Your task to perform on an android device: Empty the shopping cart on walmart.com. Search for razer deathadder on walmart.com, select the first entry, and add it to the cart. Image 0: 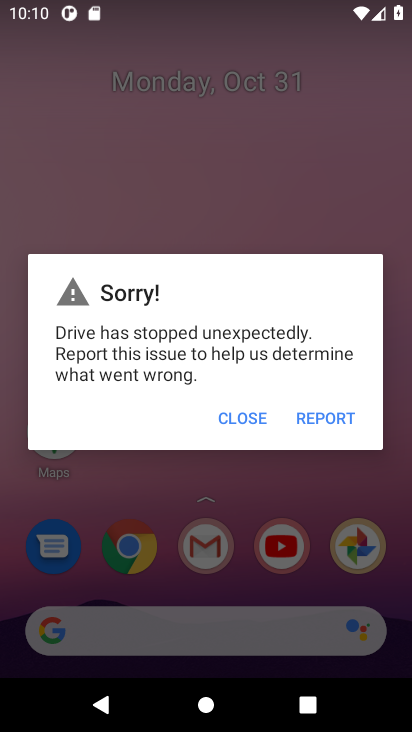
Step 0: press home button
Your task to perform on an android device: Empty the shopping cart on walmart.com. Search for razer deathadder on walmart.com, select the first entry, and add it to the cart. Image 1: 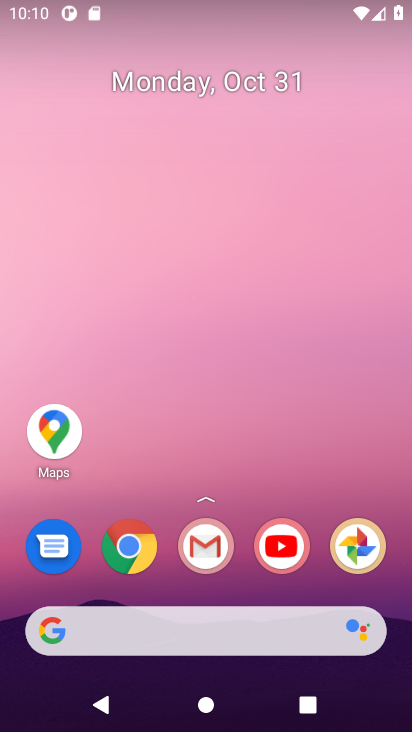
Step 1: click (136, 560)
Your task to perform on an android device: Empty the shopping cart on walmart.com. Search for razer deathadder on walmart.com, select the first entry, and add it to the cart. Image 2: 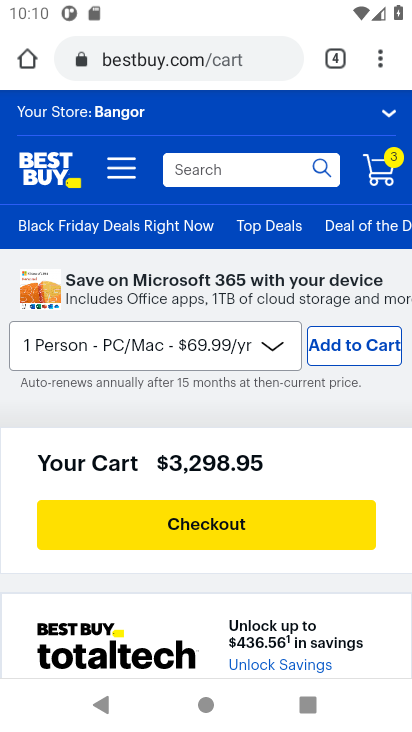
Step 2: click (141, 57)
Your task to perform on an android device: Empty the shopping cart on walmart.com. Search for razer deathadder on walmart.com, select the first entry, and add it to the cart. Image 3: 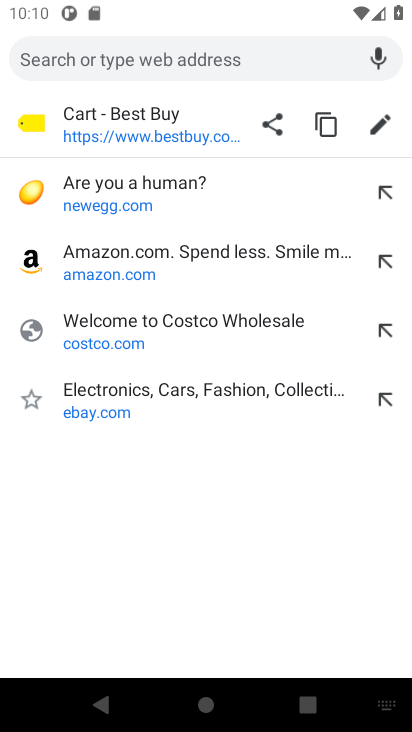
Step 3: type "walmart.com"
Your task to perform on an android device: Empty the shopping cart on walmart.com. Search for razer deathadder on walmart.com, select the first entry, and add it to the cart. Image 4: 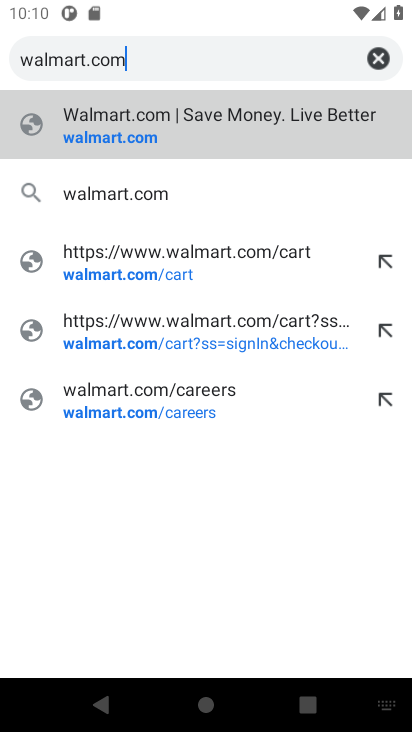
Step 4: press enter
Your task to perform on an android device: Empty the shopping cart on walmart.com. Search for razer deathadder on walmart.com, select the first entry, and add it to the cart. Image 5: 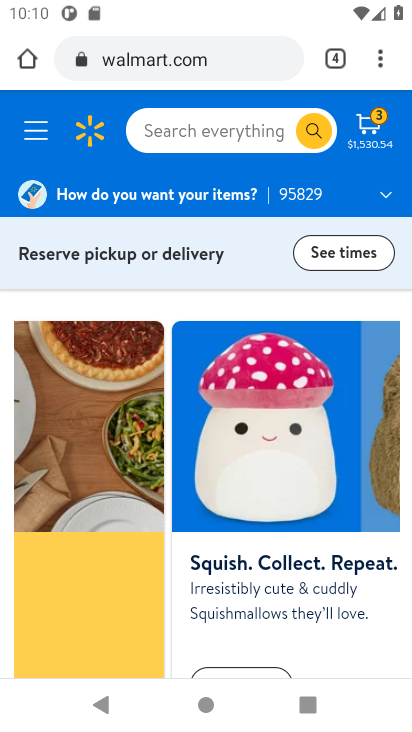
Step 5: click (379, 143)
Your task to perform on an android device: Empty the shopping cart on walmart.com. Search for razer deathadder on walmart.com, select the first entry, and add it to the cart. Image 6: 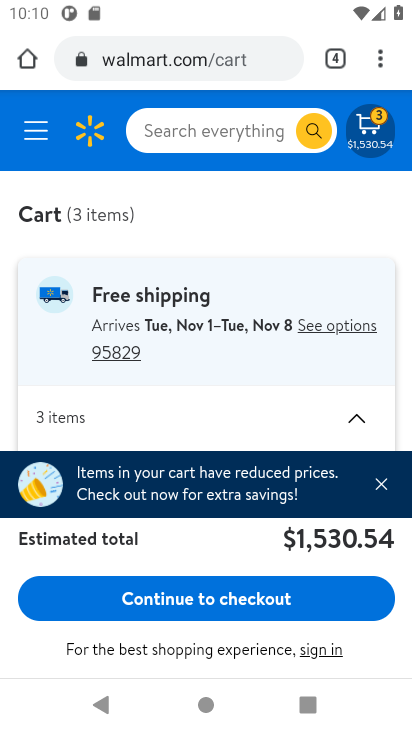
Step 6: click (355, 426)
Your task to perform on an android device: Empty the shopping cart on walmart.com. Search for razer deathadder on walmart.com, select the first entry, and add it to the cart. Image 7: 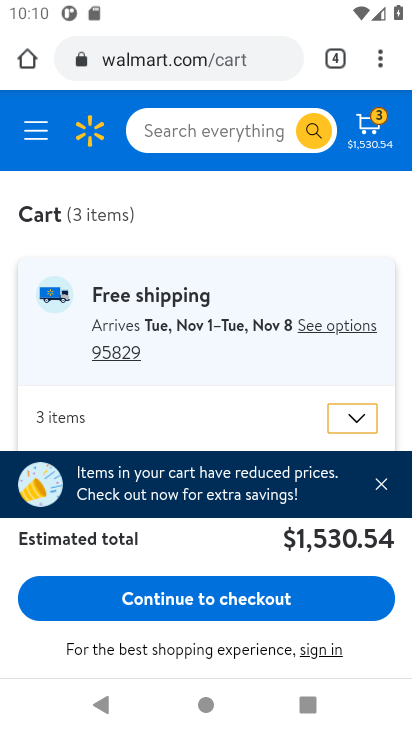
Step 7: click (382, 489)
Your task to perform on an android device: Empty the shopping cart on walmart.com. Search for razer deathadder on walmart.com, select the first entry, and add it to the cart. Image 8: 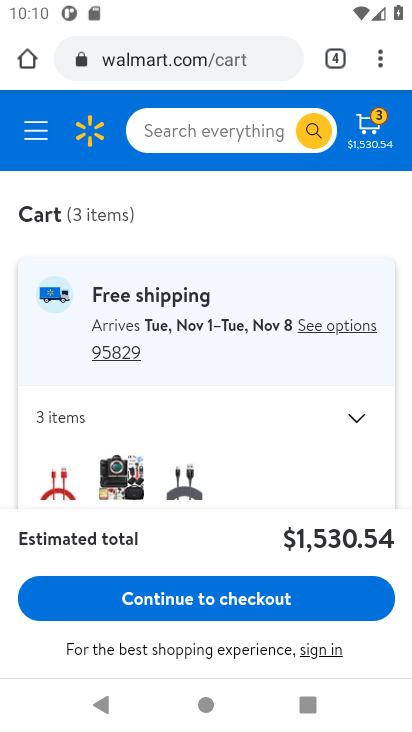
Step 8: drag from (313, 456) to (324, 216)
Your task to perform on an android device: Empty the shopping cart on walmart.com. Search for razer deathadder on walmart.com, select the first entry, and add it to the cart. Image 9: 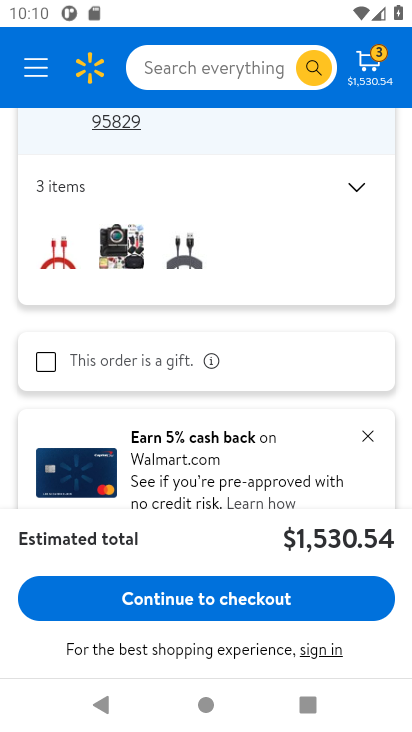
Step 9: click (365, 440)
Your task to perform on an android device: Empty the shopping cart on walmart.com. Search for razer deathadder on walmart.com, select the first entry, and add it to the cart. Image 10: 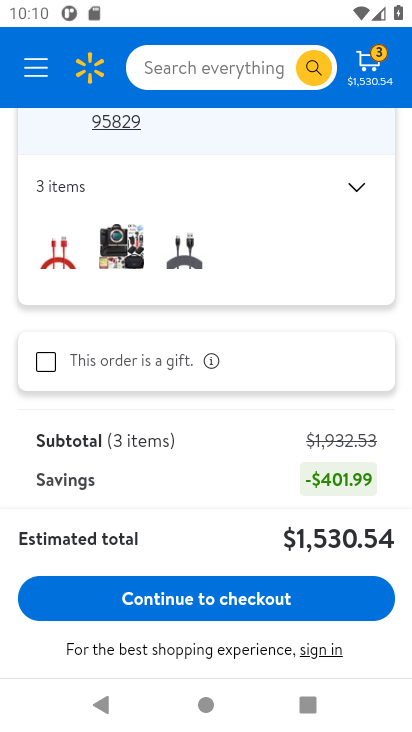
Step 10: drag from (352, 467) to (357, 535)
Your task to perform on an android device: Empty the shopping cart on walmart.com. Search for razer deathadder on walmart.com, select the first entry, and add it to the cart. Image 11: 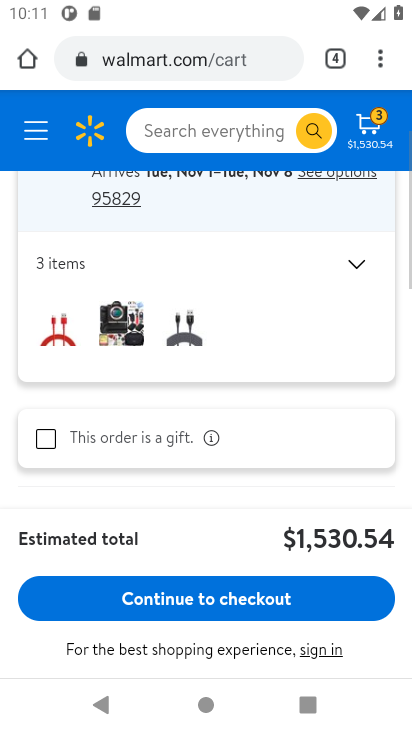
Step 11: drag from (323, 302) to (350, 477)
Your task to perform on an android device: Empty the shopping cart on walmart.com. Search for razer deathadder on walmart.com, select the first entry, and add it to the cart. Image 12: 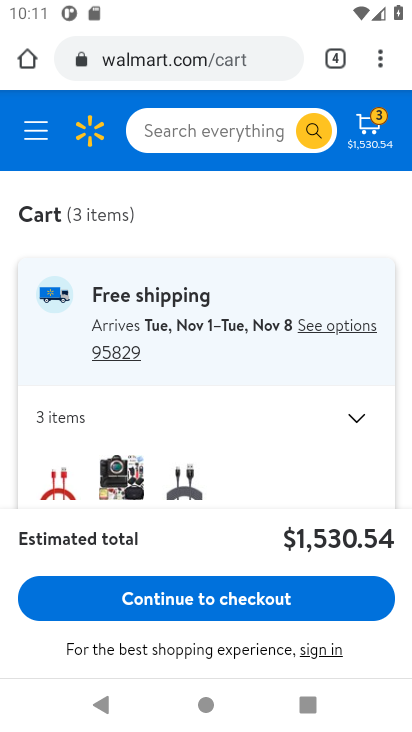
Step 12: click (326, 308)
Your task to perform on an android device: Empty the shopping cart on walmart.com. Search for razer deathadder on walmart.com, select the first entry, and add it to the cart. Image 13: 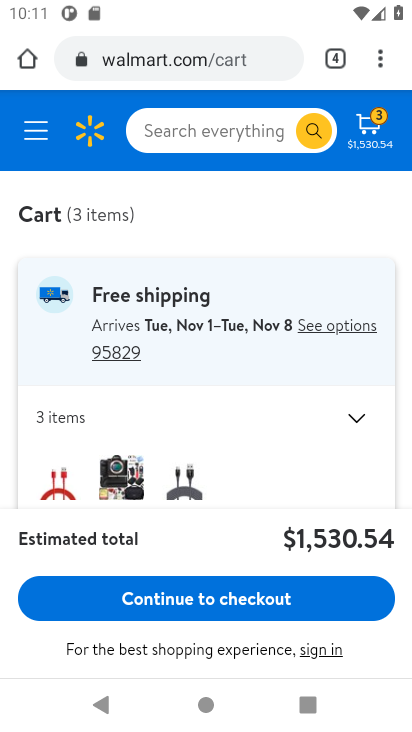
Step 13: drag from (326, 308) to (358, 220)
Your task to perform on an android device: Empty the shopping cart on walmart.com. Search for razer deathadder on walmart.com, select the first entry, and add it to the cart. Image 14: 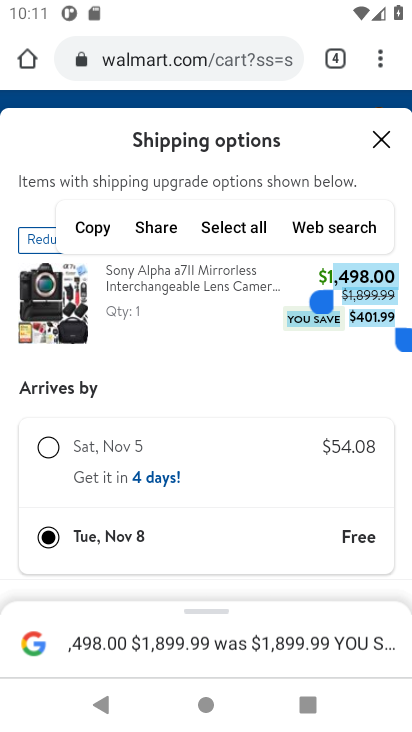
Step 14: drag from (216, 488) to (261, 320)
Your task to perform on an android device: Empty the shopping cart on walmart.com. Search for razer deathadder on walmart.com, select the first entry, and add it to the cart. Image 15: 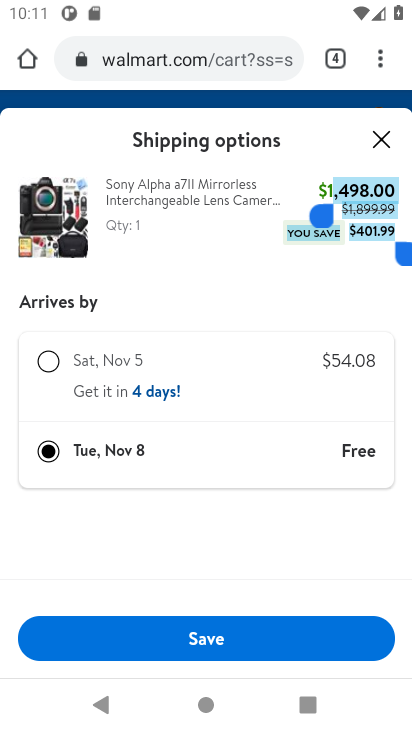
Step 15: drag from (235, 434) to (285, 247)
Your task to perform on an android device: Empty the shopping cart on walmart.com. Search for razer deathadder on walmart.com, select the first entry, and add it to the cart. Image 16: 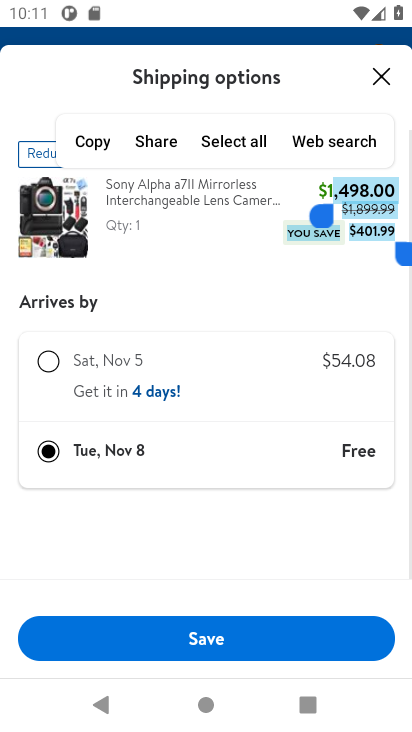
Step 16: drag from (258, 493) to (292, 666)
Your task to perform on an android device: Empty the shopping cart on walmart.com. Search for razer deathadder on walmart.com, select the first entry, and add it to the cart. Image 17: 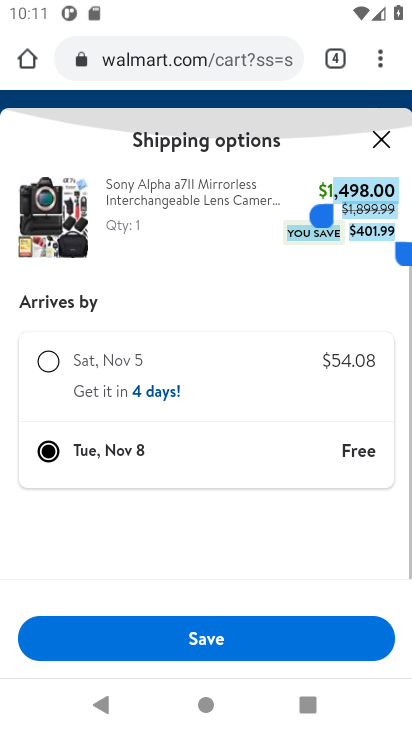
Step 17: drag from (279, 499) to (286, 562)
Your task to perform on an android device: Empty the shopping cart on walmart.com. Search for razer deathadder on walmart.com, select the first entry, and add it to the cart. Image 18: 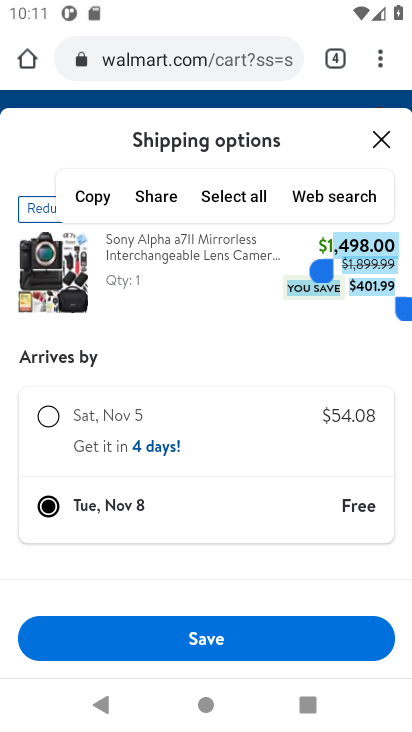
Step 18: click (376, 146)
Your task to perform on an android device: Empty the shopping cart on walmart.com. Search for razer deathadder on walmart.com, select the first entry, and add it to the cart. Image 19: 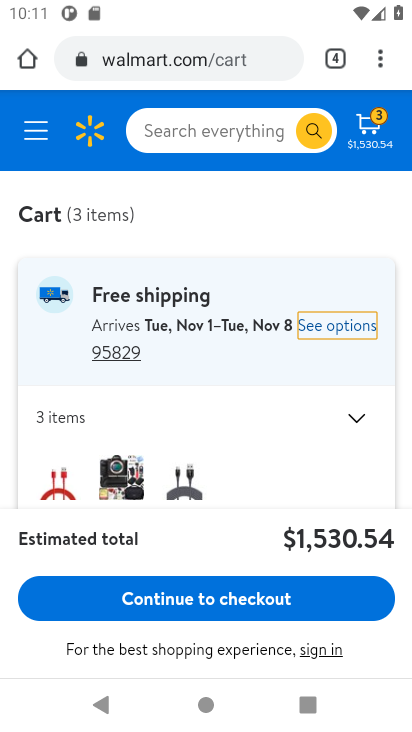
Step 19: drag from (212, 468) to (199, 297)
Your task to perform on an android device: Empty the shopping cart on walmart.com. Search for razer deathadder on walmart.com, select the first entry, and add it to the cart. Image 20: 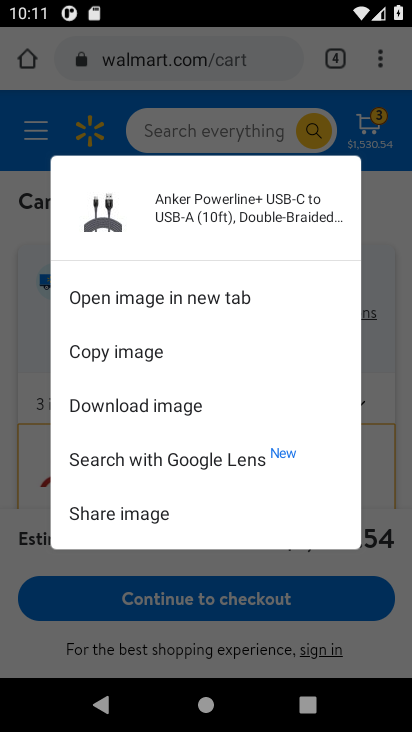
Step 20: click (374, 365)
Your task to perform on an android device: Empty the shopping cart on walmart.com. Search for razer deathadder on walmart.com, select the first entry, and add it to the cart. Image 21: 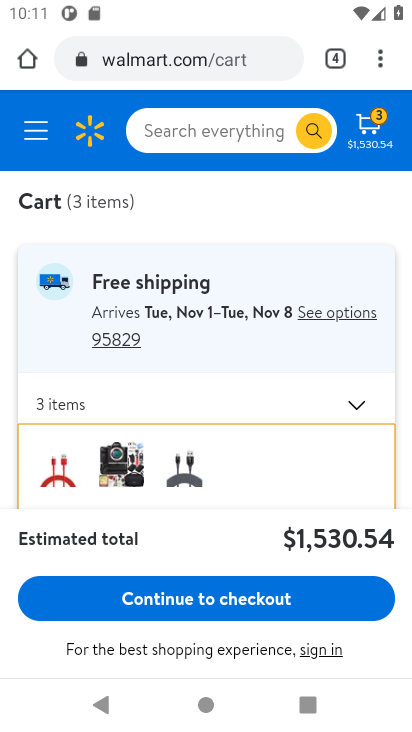
Step 21: drag from (274, 478) to (263, 332)
Your task to perform on an android device: Empty the shopping cart on walmart.com. Search for razer deathadder on walmart.com, select the first entry, and add it to the cart. Image 22: 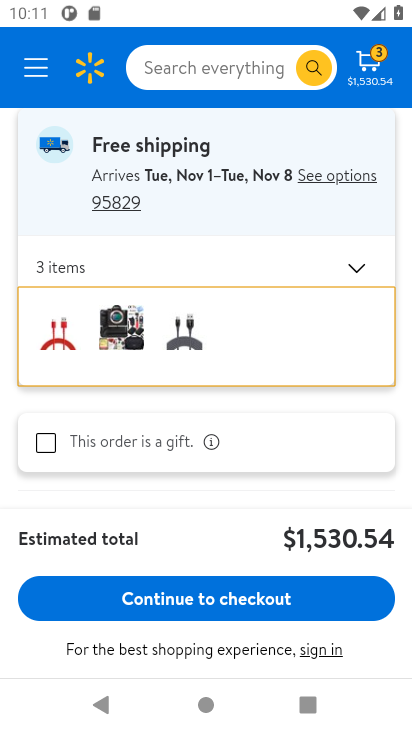
Step 22: drag from (273, 459) to (292, 729)
Your task to perform on an android device: Empty the shopping cart on walmart.com. Search for razer deathadder on walmart.com, select the first entry, and add it to the cart. Image 23: 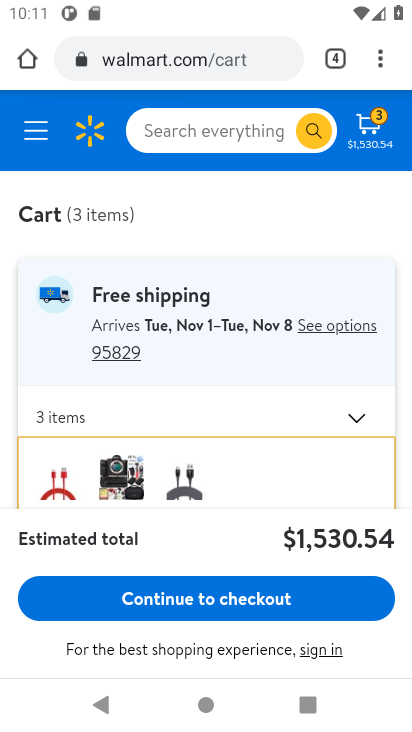
Step 23: drag from (282, 339) to (271, 521)
Your task to perform on an android device: Empty the shopping cart on walmart.com. Search for razer deathadder on walmart.com, select the first entry, and add it to the cart. Image 24: 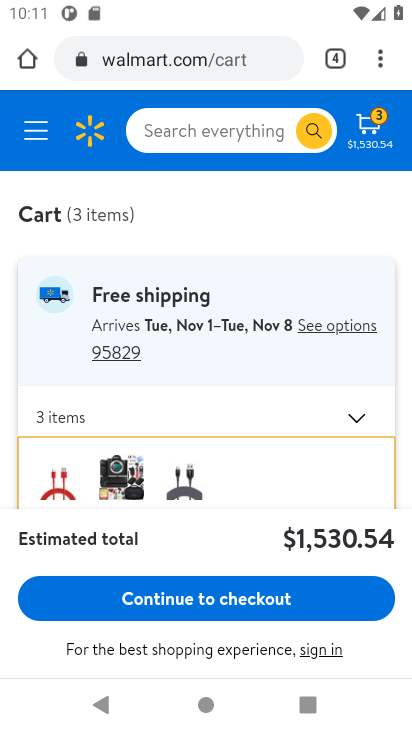
Step 24: click (373, 145)
Your task to perform on an android device: Empty the shopping cart on walmart.com. Search for razer deathadder on walmart.com, select the first entry, and add it to the cart. Image 25: 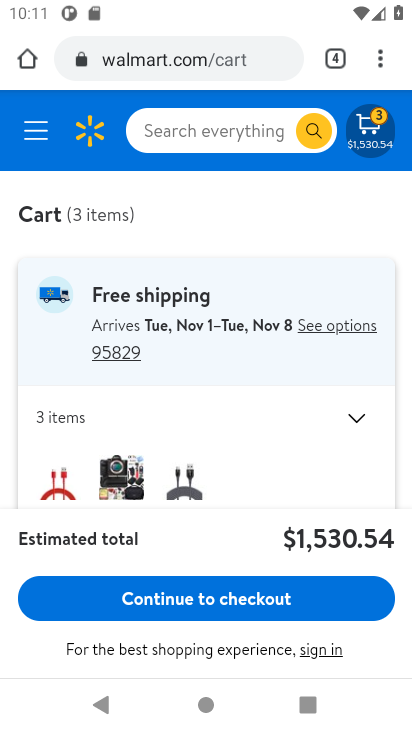
Step 25: drag from (302, 410) to (294, 189)
Your task to perform on an android device: Empty the shopping cart on walmart.com. Search for razer deathadder on walmart.com, select the first entry, and add it to the cart. Image 26: 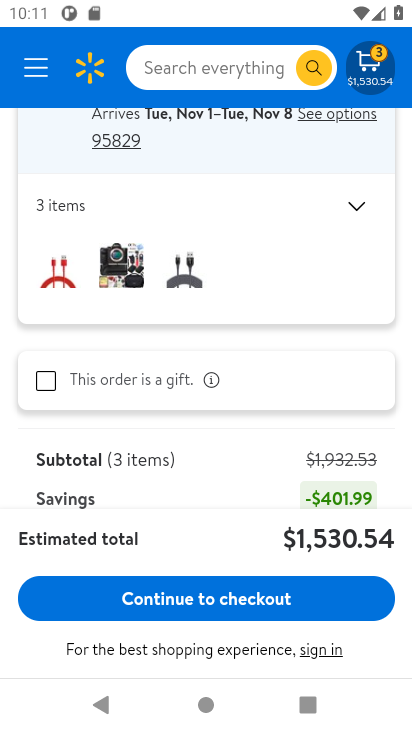
Step 26: click (358, 208)
Your task to perform on an android device: Empty the shopping cart on walmart.com. Search for razer deathadder on walmart.com, select the first entry, and add it to the cart. Image 27: 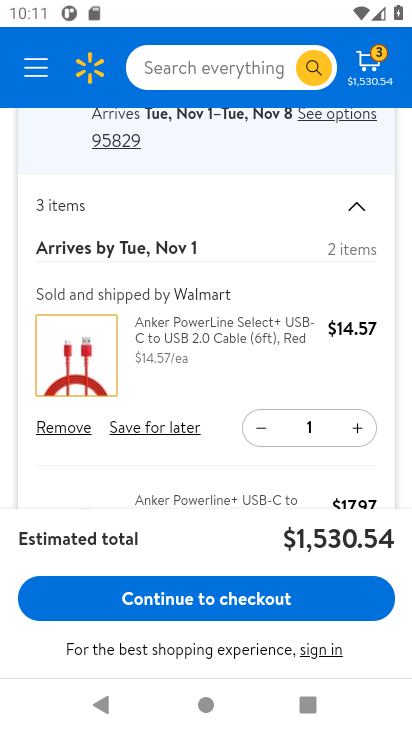
Step 27: click (265, 432)
Your task to perform on an android device: Empty the shopping cart on walmart.com. Search for razer deathadder on walmart.com, select the first entry, and add it to the cart. Image 28: 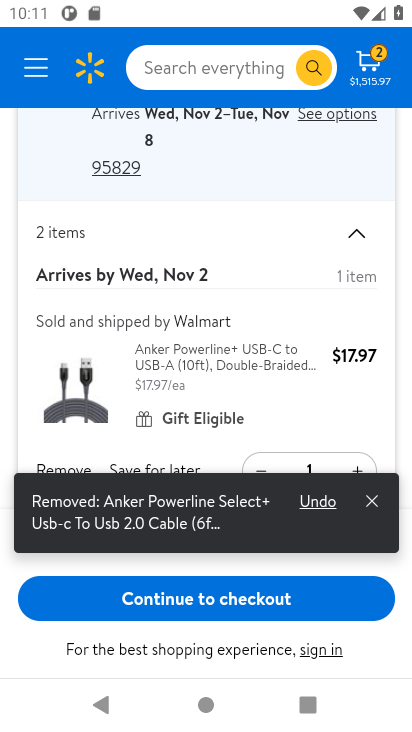
Step 28: drag from (229, 426) to (231, 294)
Your task to perform on an android device: Empty the shopping cart on walmart.com. Search for razer deathadder on walmart.com, select the first entry, and add it to the cart. Image 29: 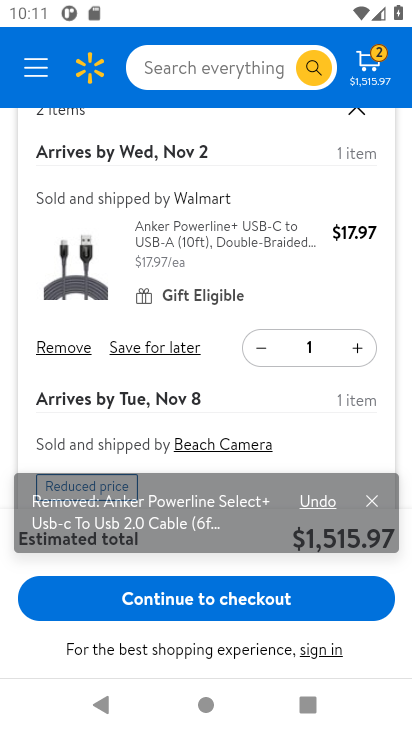
Step 29: click (261, 351)
Your task to perform on an android device: Empty the shopping cart on walmart.com. Search for razer deathadder on walmart.com, select the first entry, and add it to the cart. Image 30: 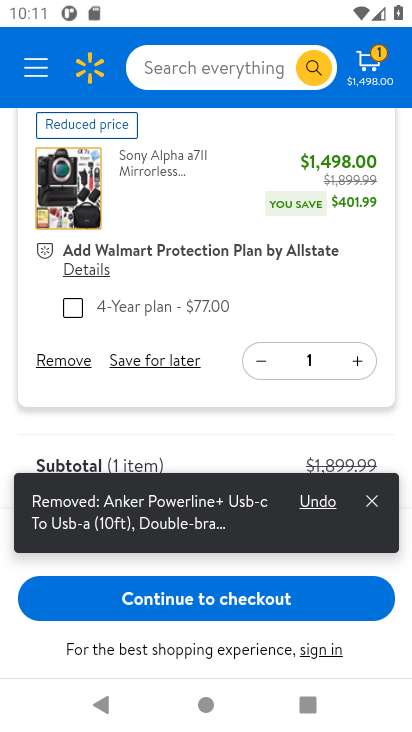
Step 30: click (265, 364)
Your task to perform on an android device: Empty the shopping cart on walmart.com. Search for razer deathadder on walmart.com, select the first entry, and add it to the cart. Image 31: 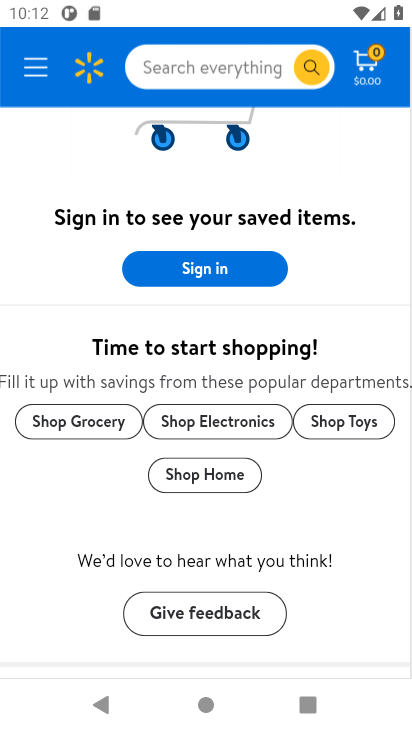
Step 31: click (170, 78)
Your task to perform on an android device: Empty the shopping cart on walmart.com. Search for razer deathadder on walmart.com, select the first entry, and add it to the cart. Image 32: 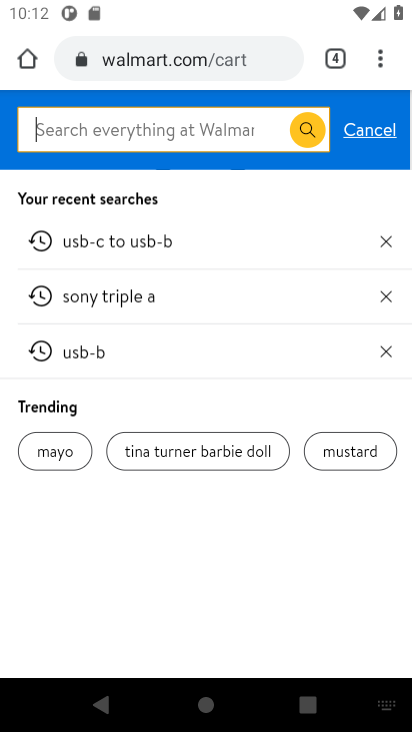
Step 32: type "razer deathadder"
Your task to perform on an android device: Empty the shopping cart on walmart.com. Search for razer deathadder on walmart.com, select the first entry, and add it to the cart. Image 33: 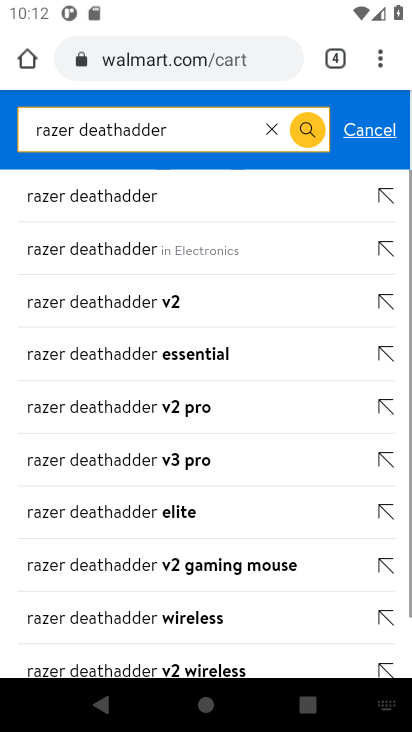
Step 33: press enter
Your task to perform on an android device: Empty the shopping cart on walmart.com. Search for razer deathadder on walmart.com, select the first entry, and add it to the cart. Image 34: 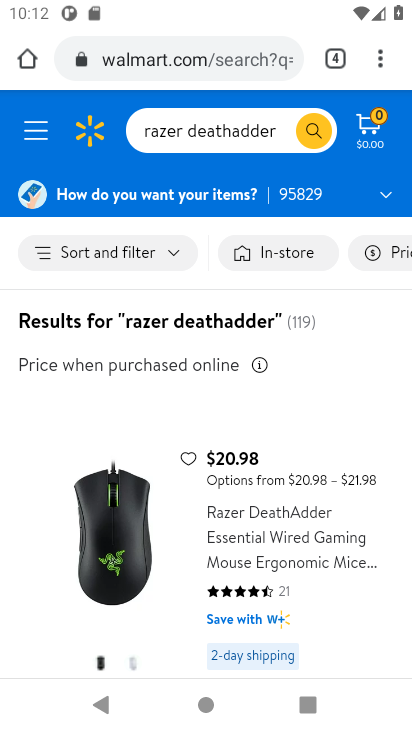
Step 34: click (118, 517)
Your task to perform on an android device: Empty the shopping cart on walmart.com. Search for razer deathadder on walmart.com, select the first entry, and add it to the cart. Image 35: 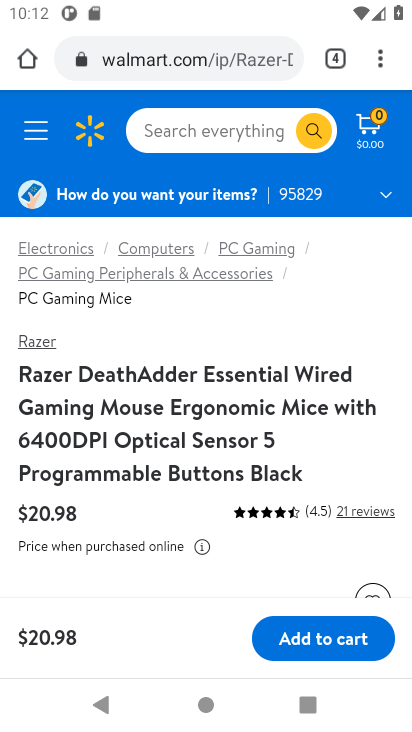
Step 35: drag from (176, 629) to (164, 364)
Your task to perform on an android device: Empty the shopping cart on walmart.com. Search for razer deathadder on walmart.com, select the first entry, and add it to the cart. Image 36: 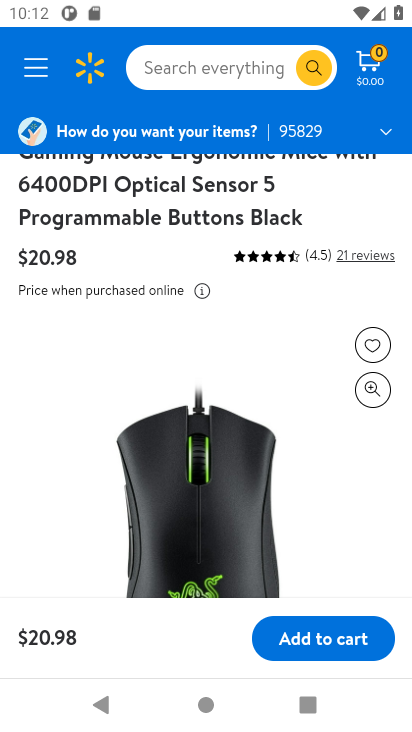
Step 36: click (325, 654)
Your task to perform on an android device: Empty the shopping cart on walmart.com. Search for razer deathadder on walmart.com, select the first entry, and add it to the cart. Image 37: 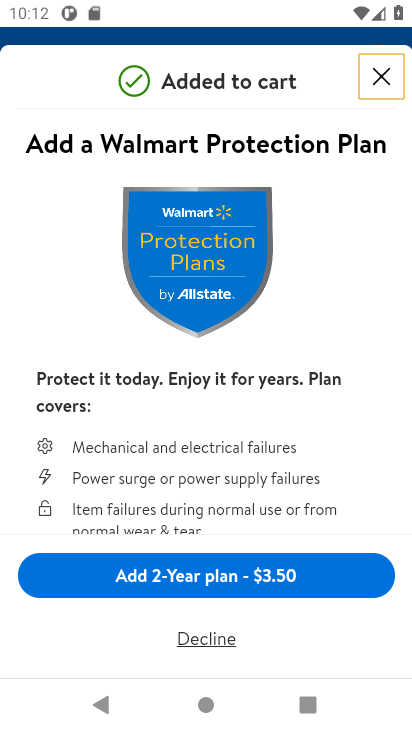
Step 37: click (221, 580)
Your task to perform on an android device: Empty the shopping cart on walmart.com. Search for razer deathadder on walmart.com, select the first entry, and add it to the cart. Image 38: 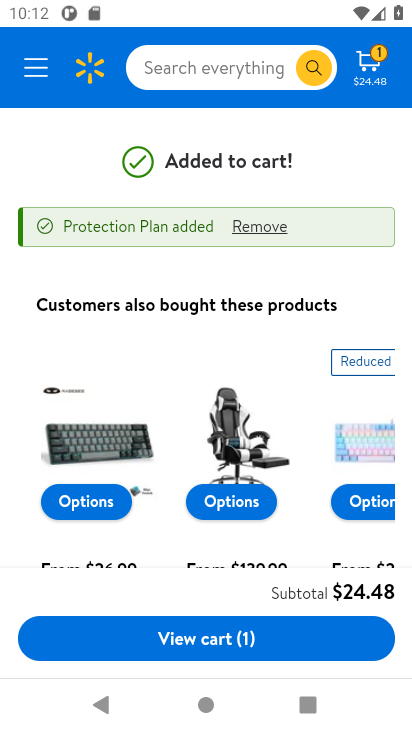
Step 38: task complete